Your task to perform on an android device: open a bookmark in the chrome app Image 0: 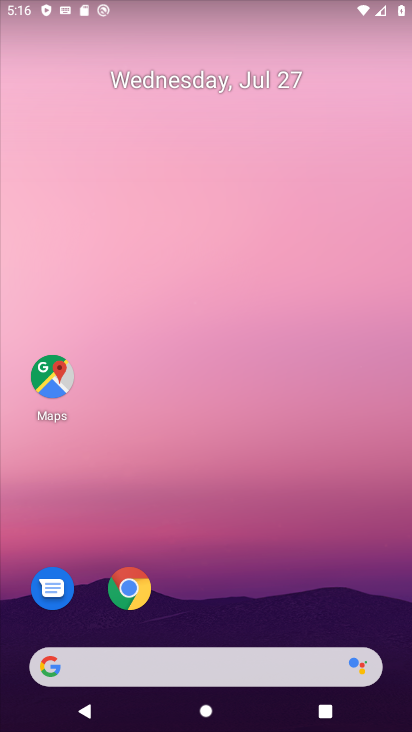
Step 0: drag from (189, 653) to (218, 72)
Your task to perform on an android device: open a bookmark in the chrome app Image 1: 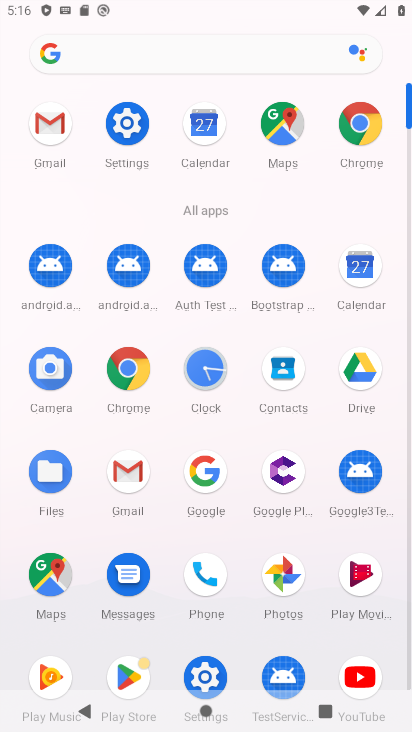
Step 1: click (131, 356)
Your task to perform on an android device: open a bookmark in the chrome app Image 2: 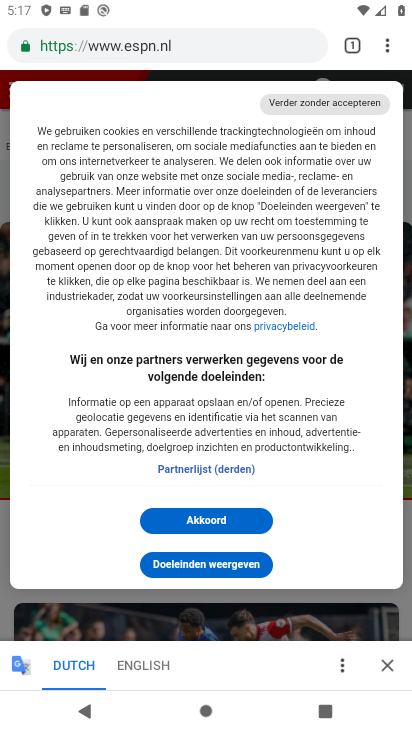
Step 2: click (385, 47)
Your task to perform on an android device: open a bookmark in the chrome app Image 3: 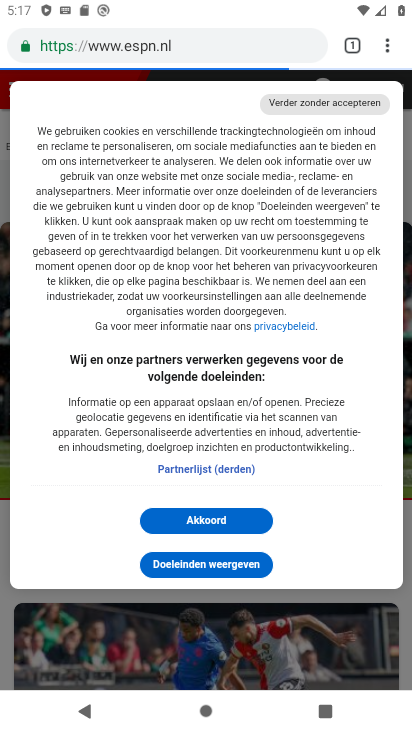
Step 3: click (385, 39)
Your task to perform on an android device: open a bookmark in the chrome app Image 4: 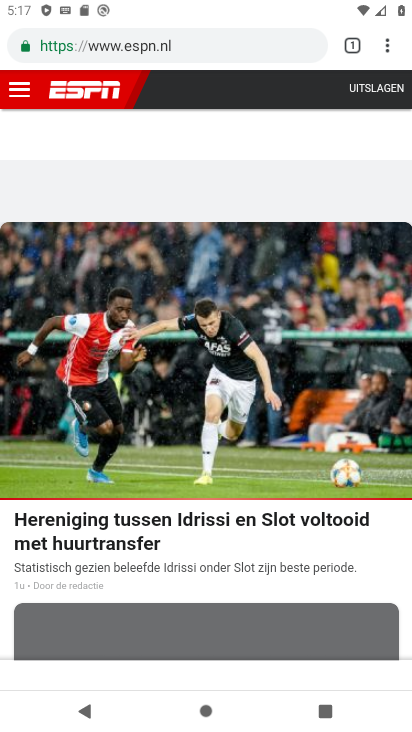
Step 4: click (384, 35)
Your task to perform on an android device: open a bookmark in the chrome app Image 5: 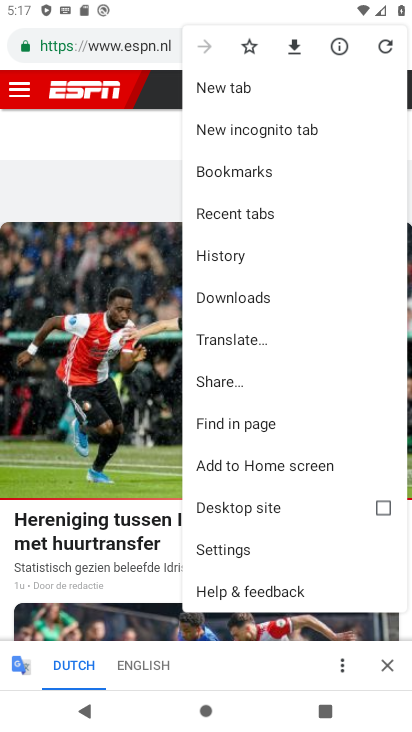
Step 5: click (293, 167)
Your task to perform on an android device: open a bookmark in the chrome app Image 6: 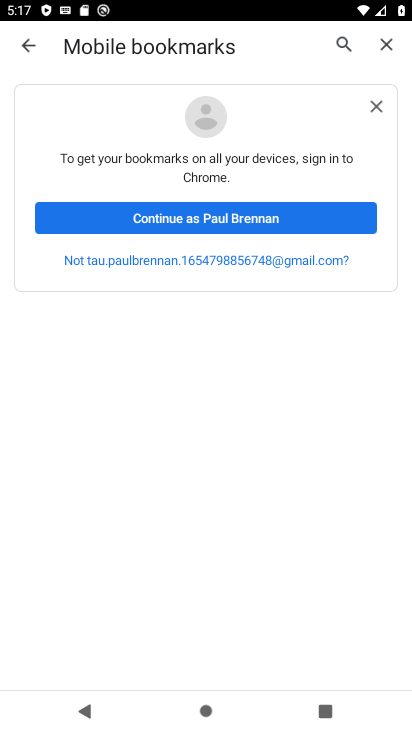
Step 6: task complete